Your task to perform on an android device: Open maps Image 0: 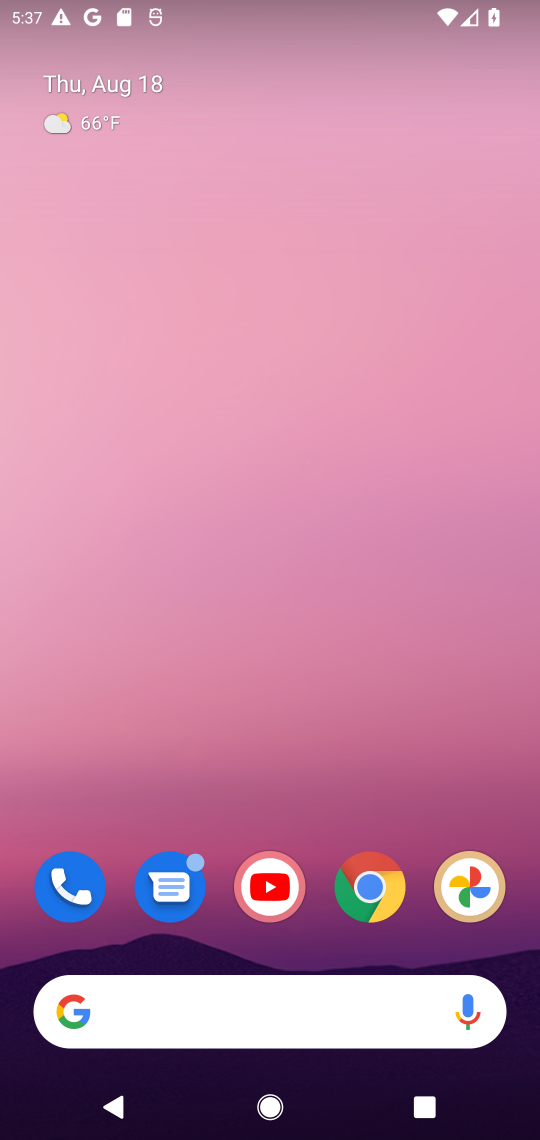
Step 0: drag from (319, 780) to (452, 6)
Your task to perform on an android device: Open maps Image 1: 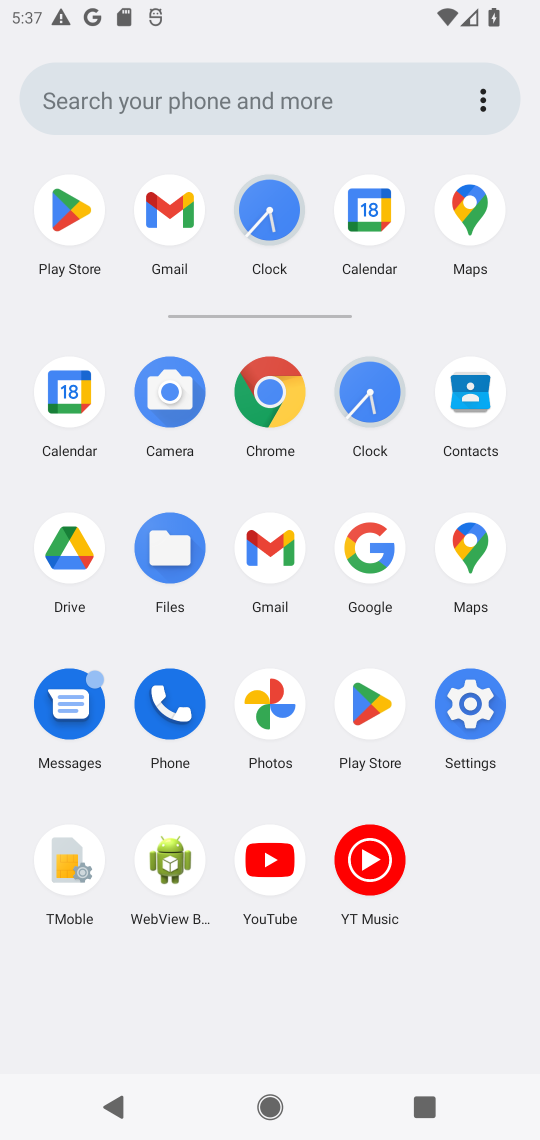
Step 1: click (453, 209)
Your task to perform on an android device: Open maps Image 2: 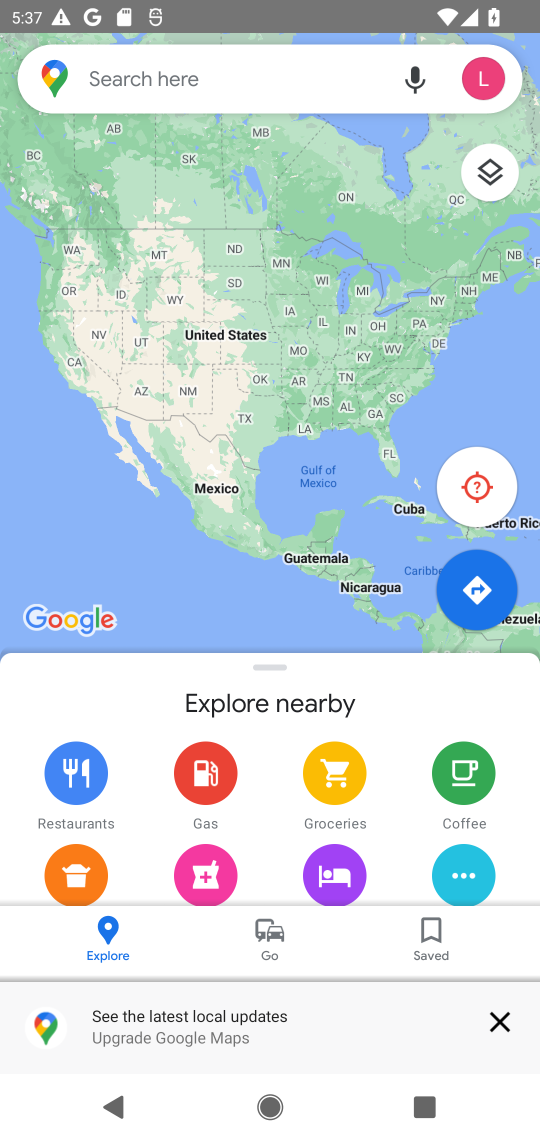
Step 2: task complete